Your task to perform on an android device: open app "Google Play Games" (install if not already installed) Image 0: 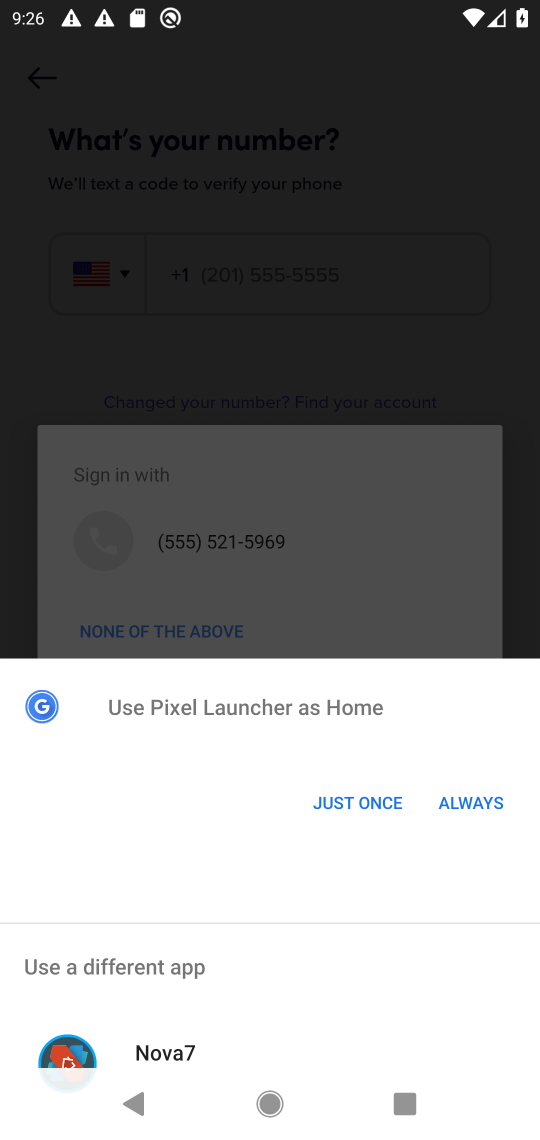
Step 0: click (346, 803)
Your task to perform on an android device: open app "Google Play Games" (install if not already installed) Image 1: 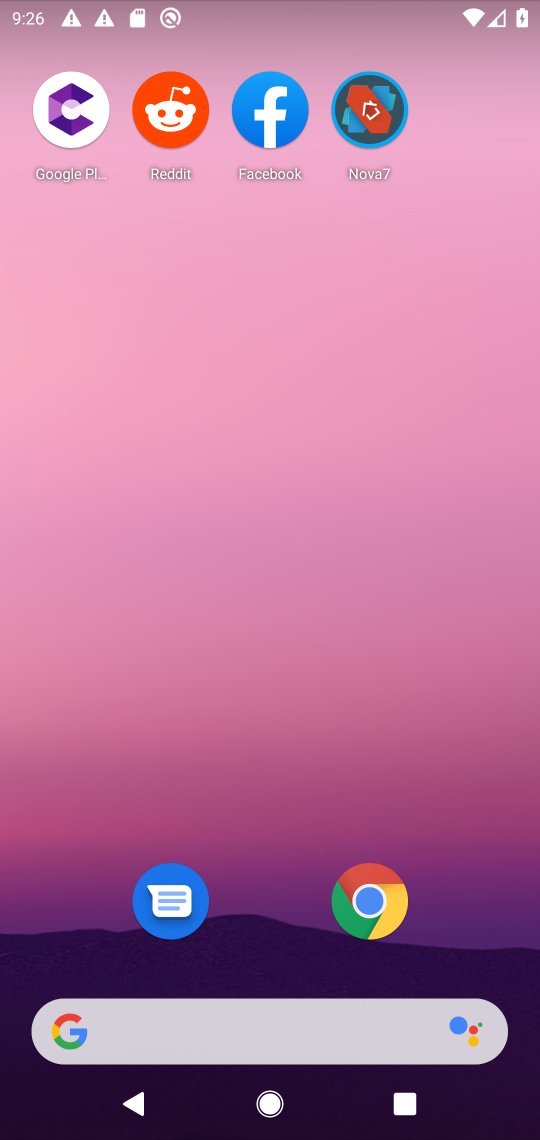
Step 1: drag from (248, 773) to (219, 266)
Your task to perform on an android device: open app "Google Play Games" (install if not already installed) Image 2: 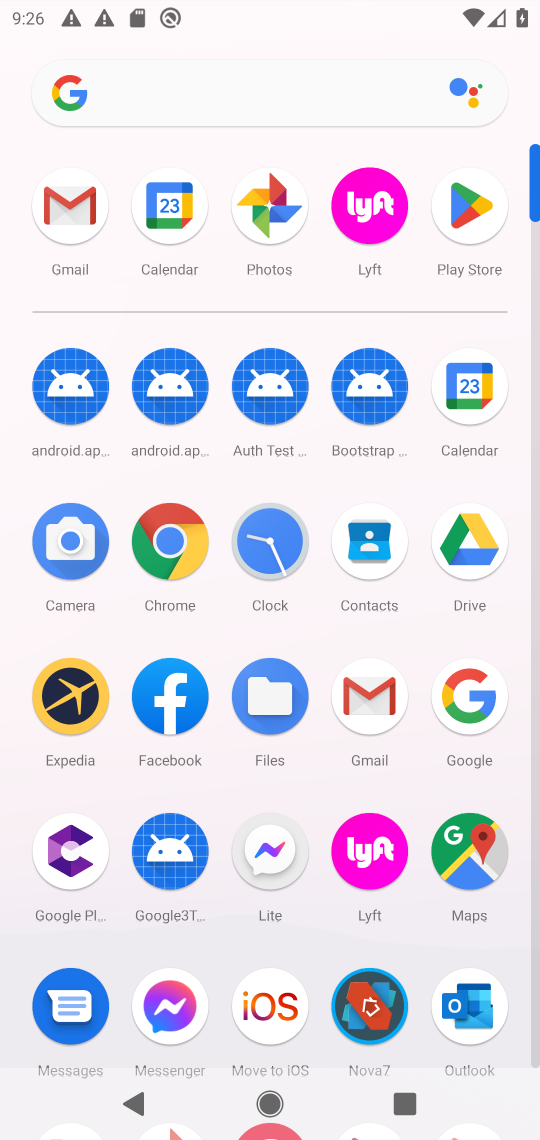
Step 2: click (450, 208)
Your task to perform on an android device: open app "Google Play Games" (install if not already installed) Image 3: 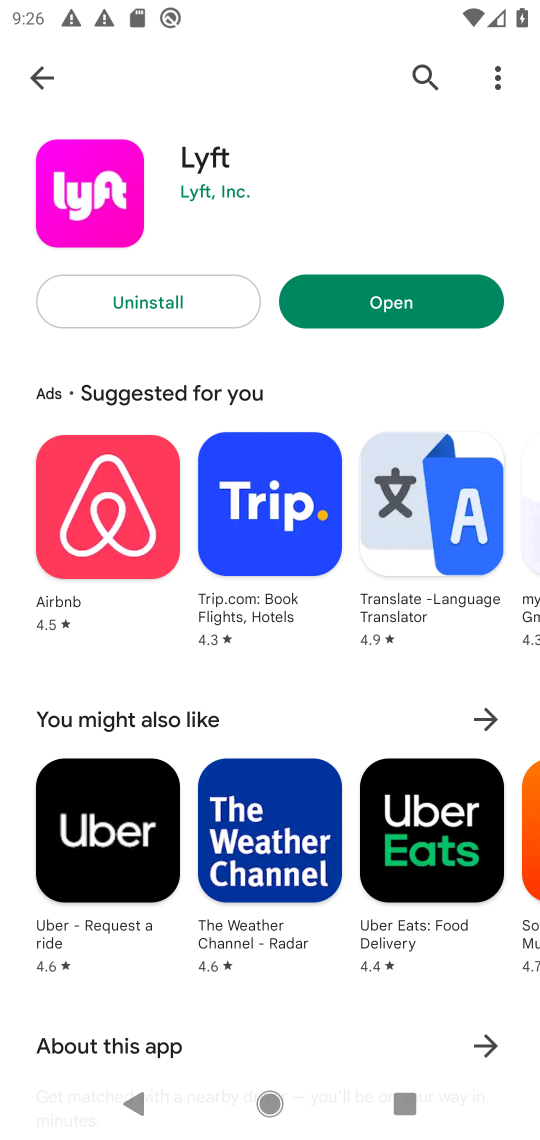
Step 3: press back button
Your task to perform on an android device: open app "Google Play Games" (install if not already installed) Image 4: 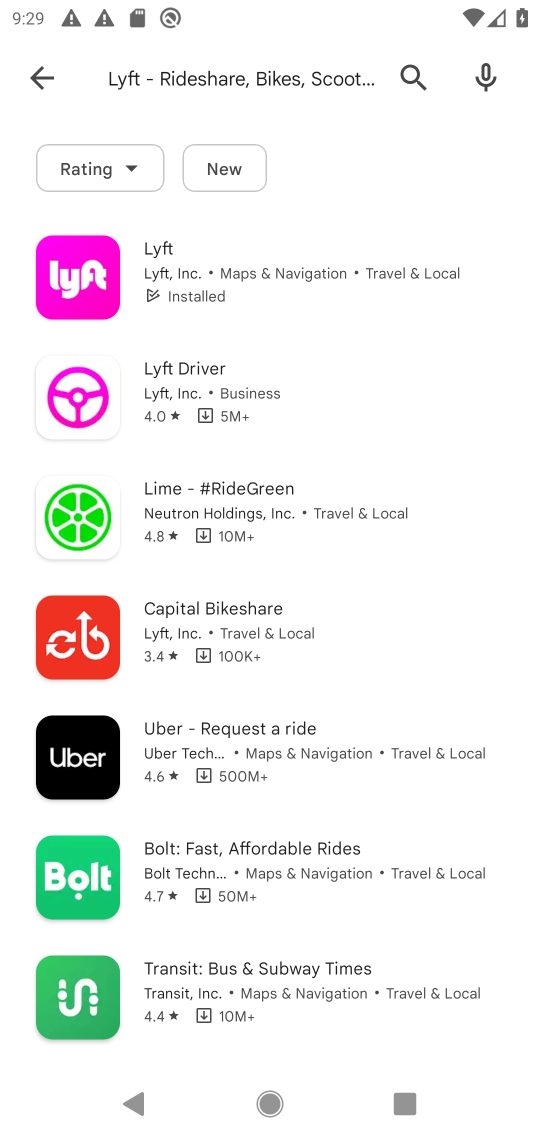
Step 4: press back button
Your task to perform on an android device: open app "Google Play Games" (install if not already installed) Image 5: 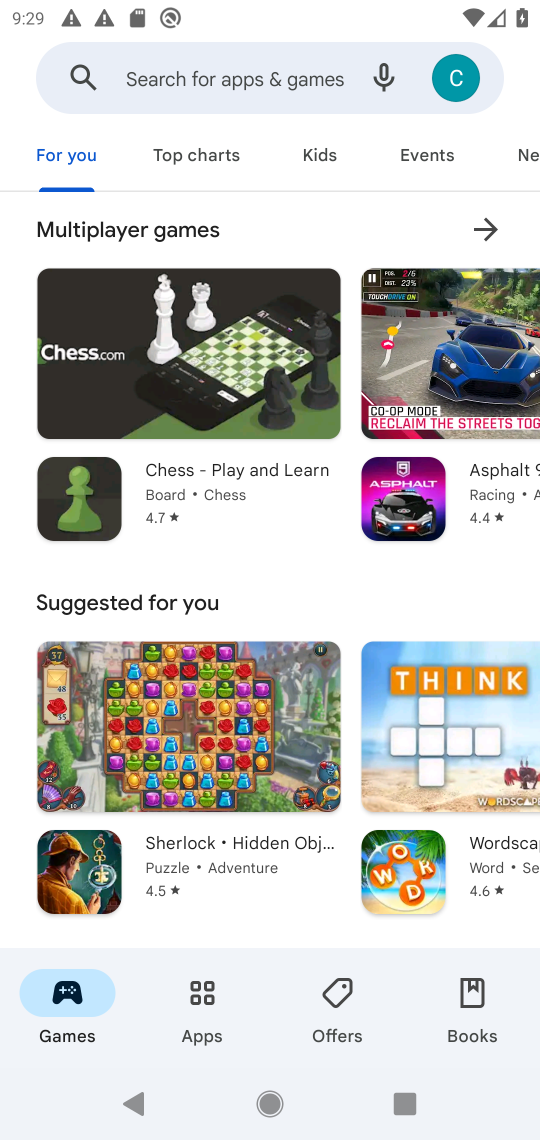
Step 5: click (180, 79)
Your task to perform on an android device: open app "Google Play Games" (install if not already installed) Image 6: 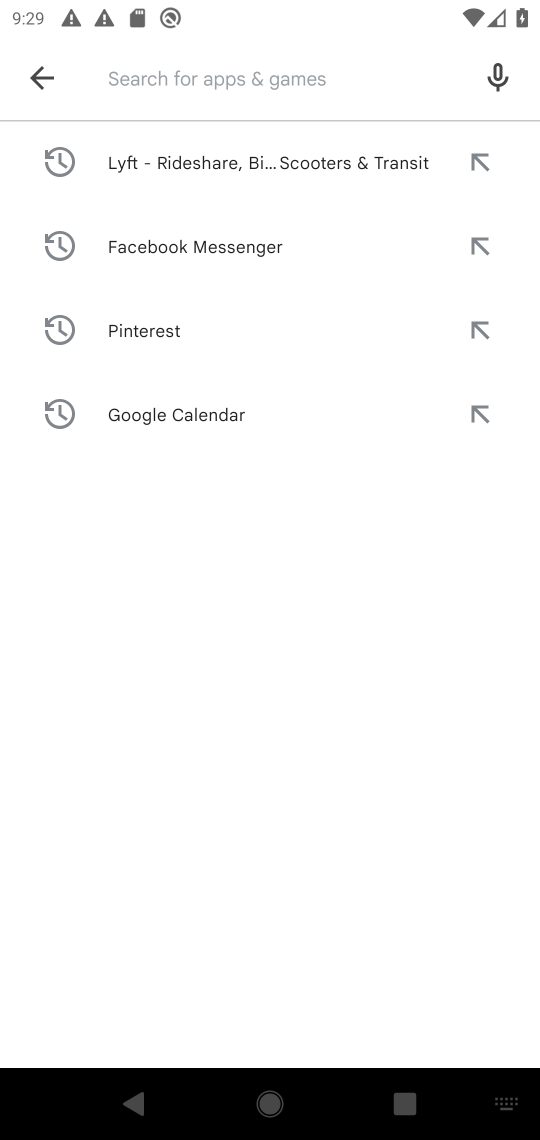
Step 6: type "Google Play Games"
Your task to perform on an android device: open app "Google Play Games" (install if not already installed) Image 7: 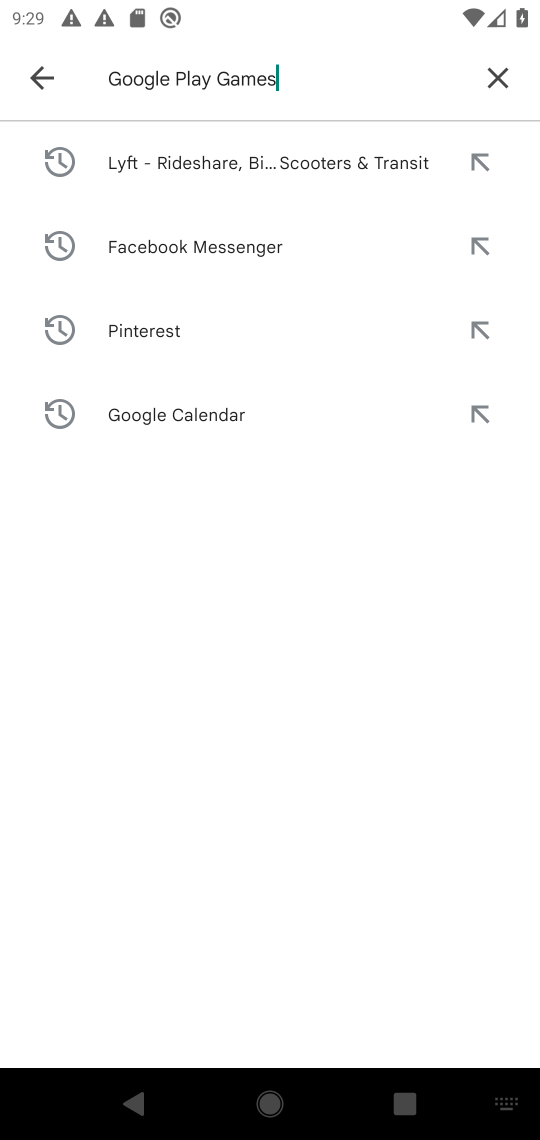
Step 7: press enter
Your task to perform on an android device: open app "Google Play Games" (install if not already installed) Image 8: 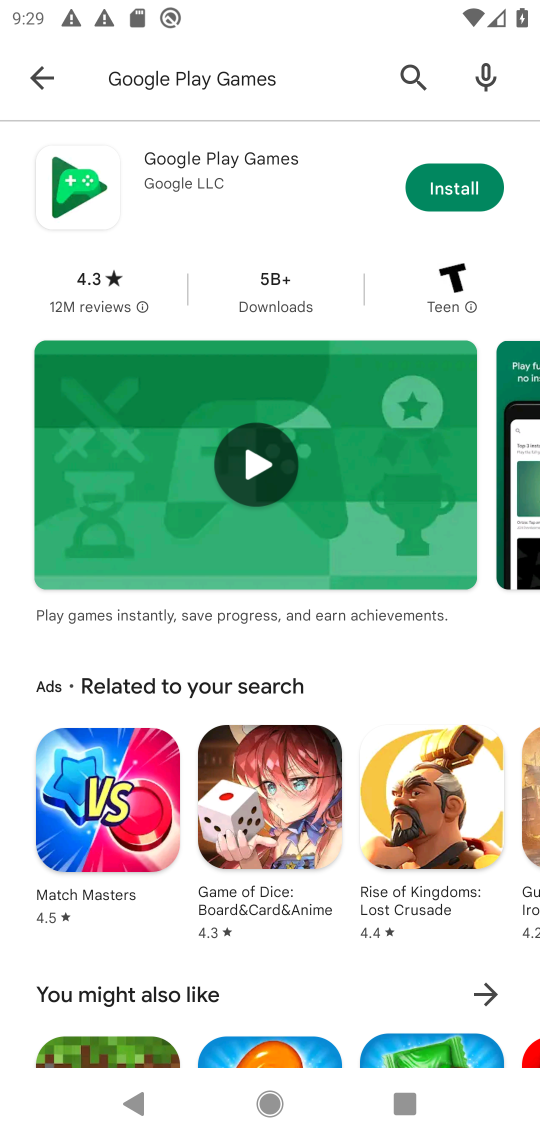
Step 8: click (438, 179)
Your task to perform on an android device: open app "Google Play Games" (install if not already installed) Image 9: 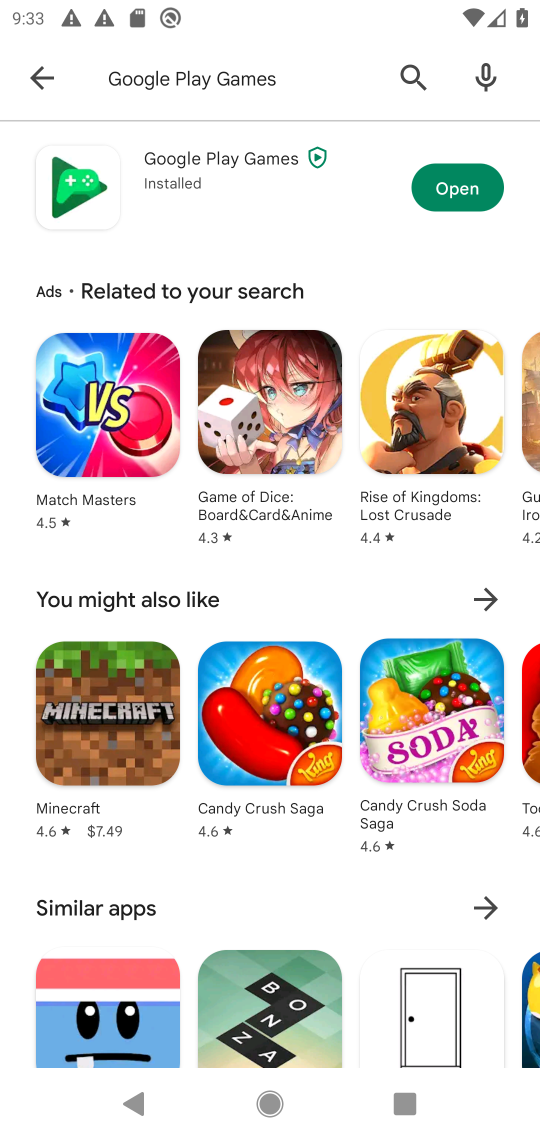
Step 9: click (462, 189)
Your task to perform on an android device: open app "Google Play Games" (install if not already installed) Image 10: 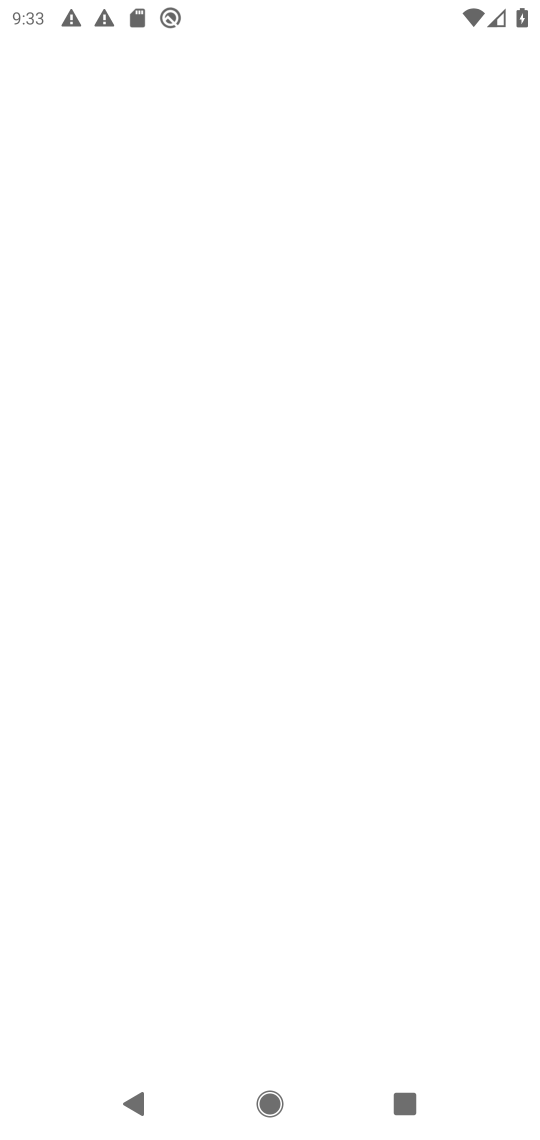
Step 10: task complete